Your task to perform on an android device: turn off data saver in the chrome app Image 0: 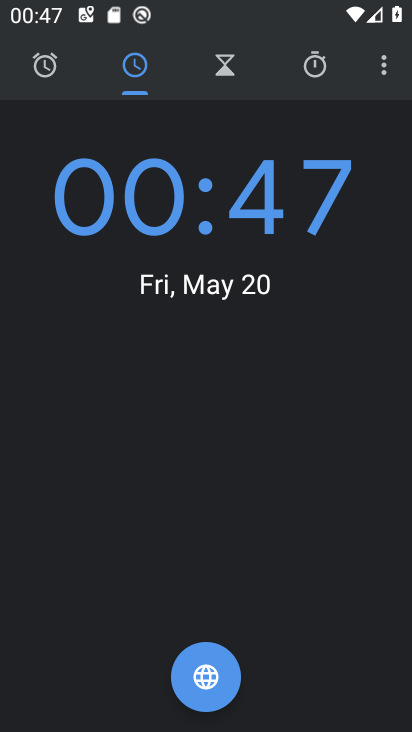
Step 0: press home button
Your task to perform on an android device: turn off data saver in the chrome app Image 1: 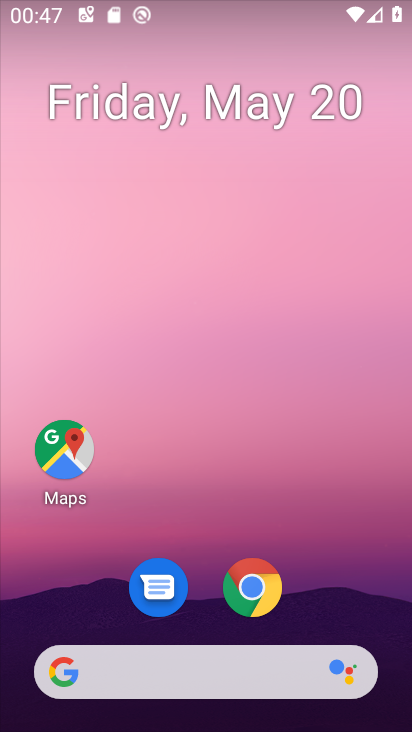
Step 1: drag from (379, 622) to (378, 30)
Your task to perform on an android device: turn off data saver in the chrome app Image 2: 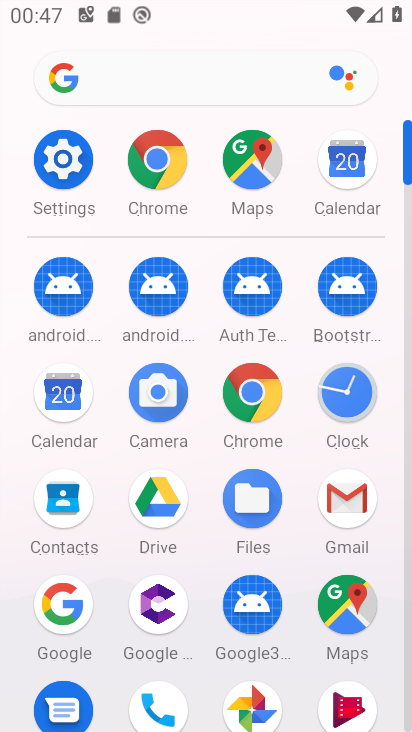
Step 2: click (261, 410)
Your task to perform on an android device: turn off data saver in the chrome app Image 3: 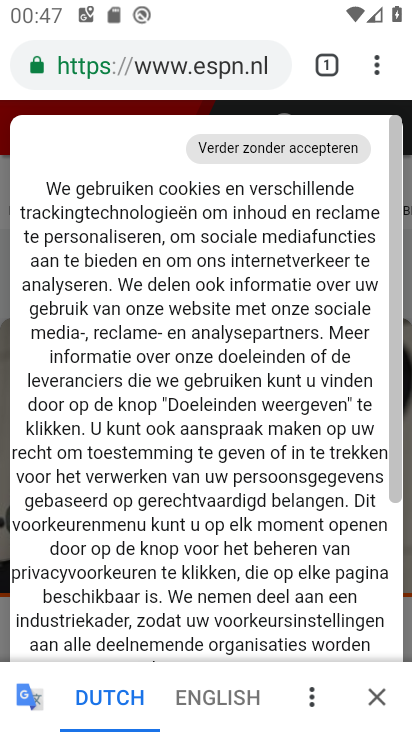
Step 3: click (374, 68)
Your task to perform on an android device: turn off data saver in the chrome app Image 4: 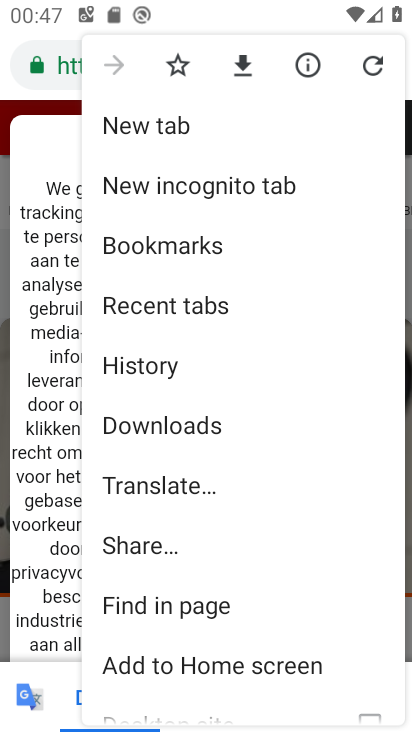
Step 4: drag from (313, 564) to (313, 388)
Your task to perform on an android device: turn off data saver in the chrome app Image 5: 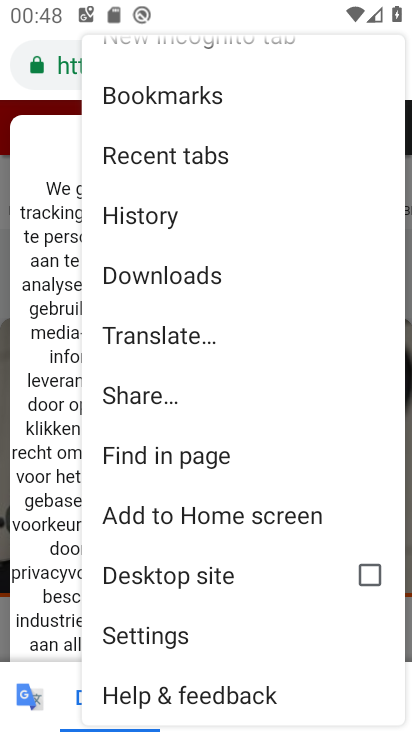
Step 5: click (175, 637)
Your task to perform on an android device: turn off data saver in the chrome app Image 6: 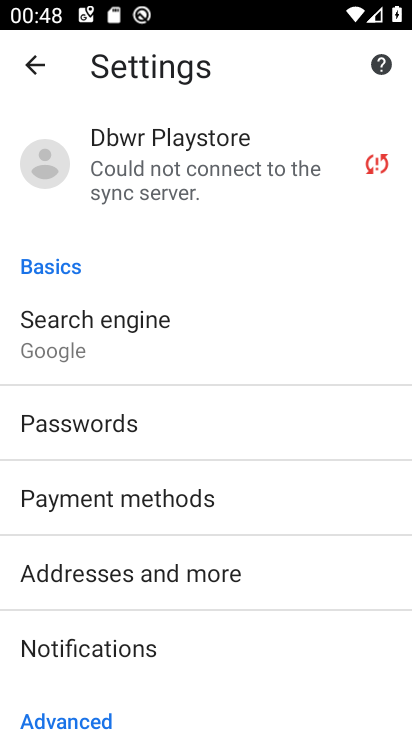
Step 6: drag from (271, 627) to (287, 500)
Your task to perform on an android device: turn off data saver in the chrome app Image 7: 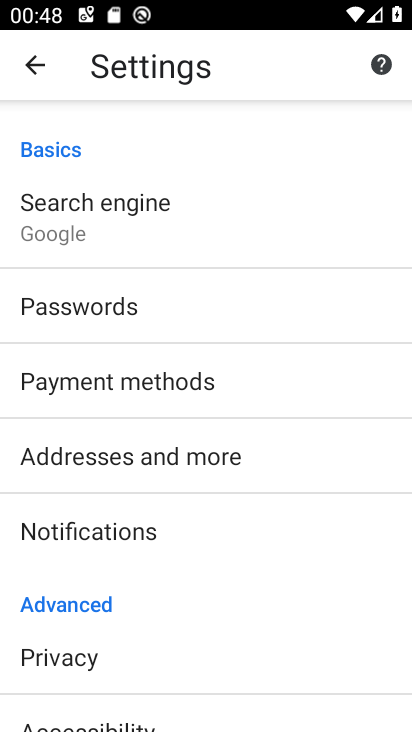
Step 7: drag from (289, 637) to (290, 530)
Your task to perform on an android device: turn off data saver in the chrome app Image 8: 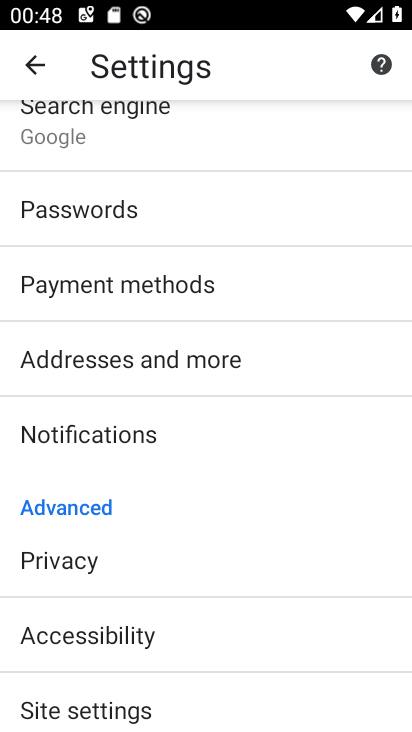
Step 8: drag from (283, 647) to (286, 453)
Your task to perform on an android device: turn off data saver in the chrome app Image 9: 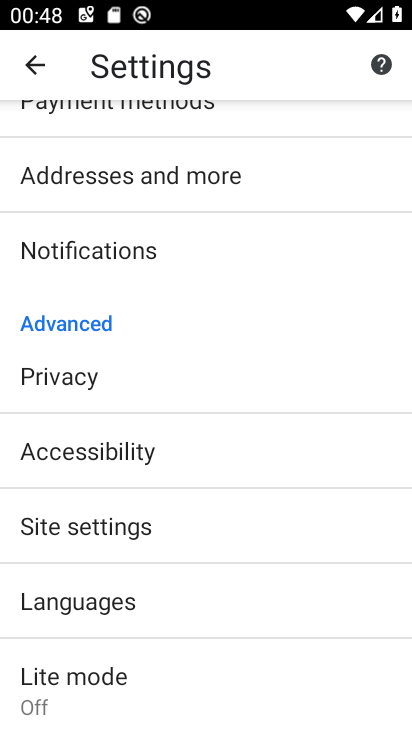
Step 9: drag from (256, 593) to (262, 452)
Your task to perform on an android device: turn off data saver in the chrome app Image 10: 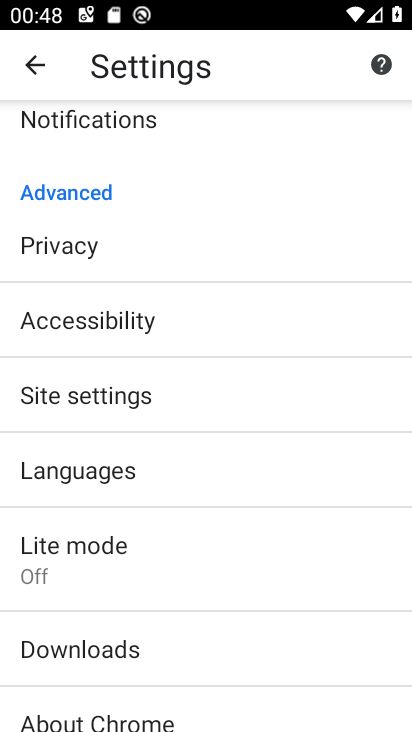
Step 10: click (103, 571)
Your task to perform on an android device: turn off data saver in the chrome app Image 11: 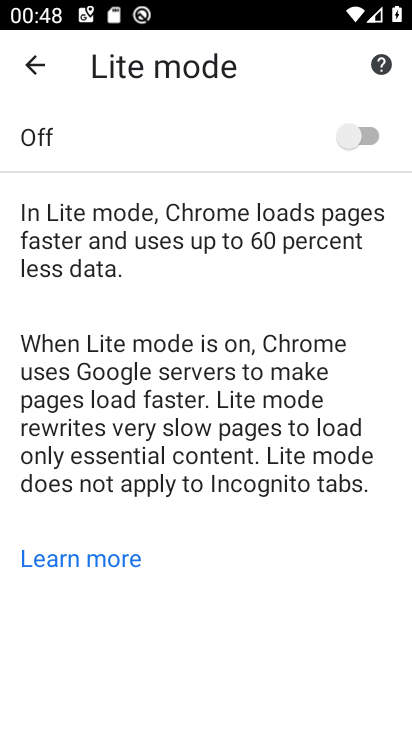
Step 11: task complete